Your task to perform on an android device: Turn on the flashlight Image 0: 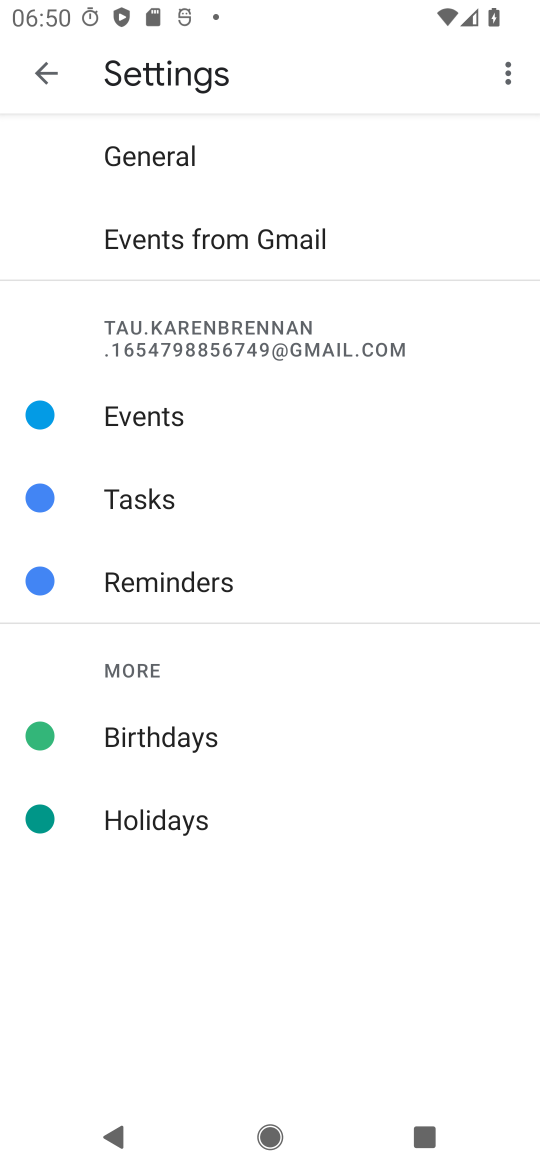
Step 0: press home button
Your task to perform on an android device: Turn on the flashlight Image 1: 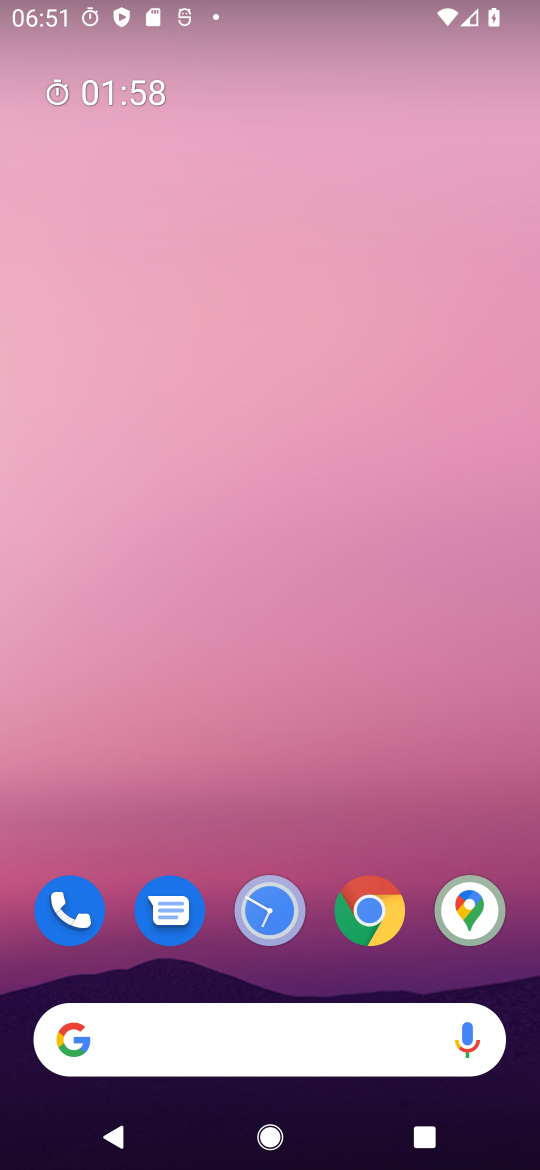
Step 1: drag from (209, 139) to (373, 1002)
Your task to perform on an android device: Turn on the flashlight Image 2: 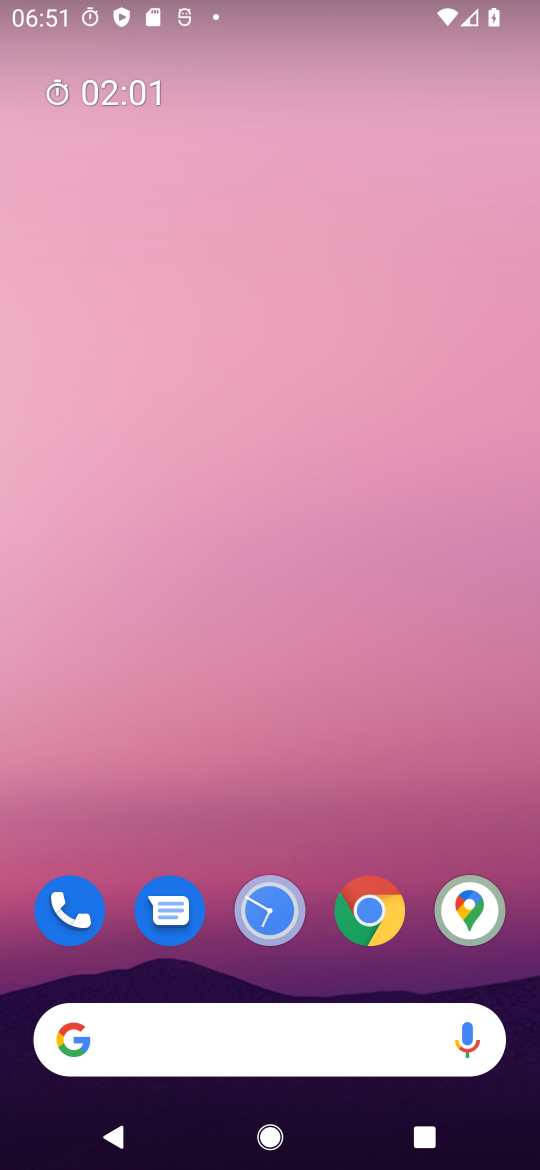
Step 2: drag from (279, 6) to (348, 902)
Your task to perform on an android device: Turn on the flashlight Image 3: 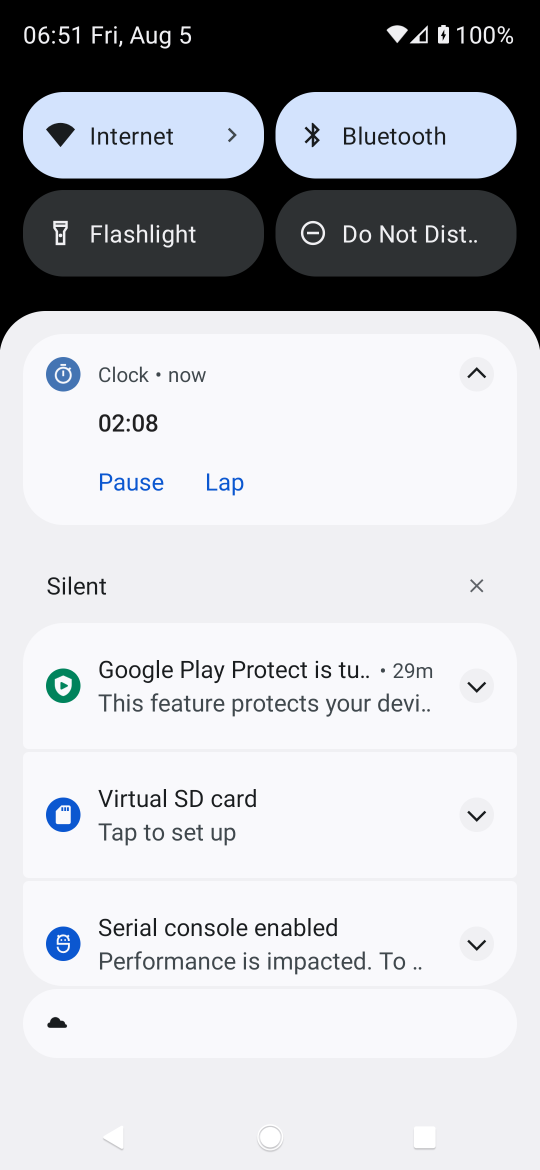
Step 3: click (162, 241)
Your task to perform on an android device: Turn on the flashlight Image 4: 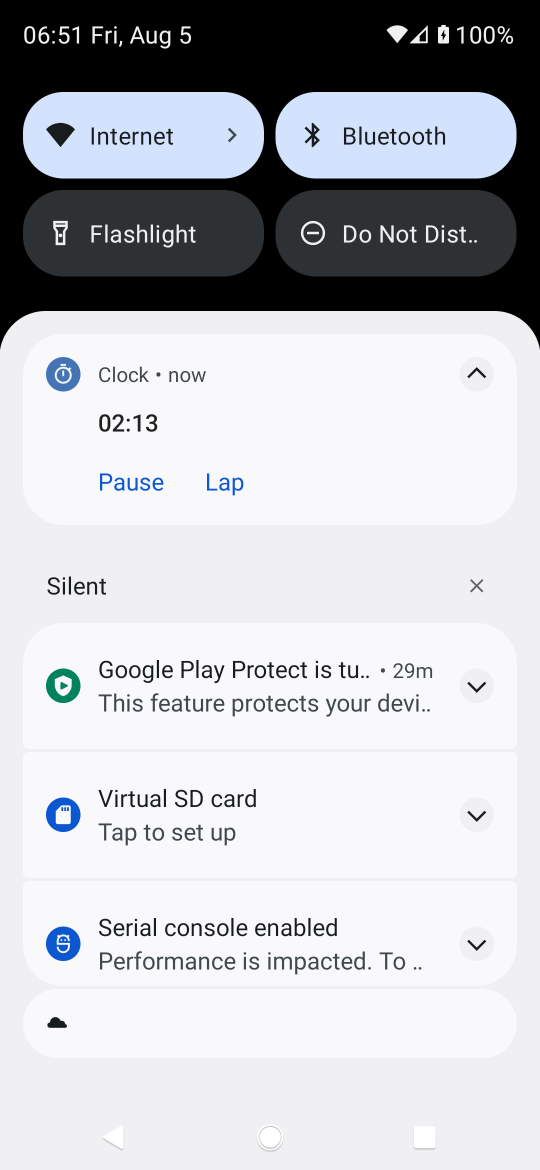
Step 4: click (162, 241)
Your task to perform on an android device: Turn on the flashlight Image 5: 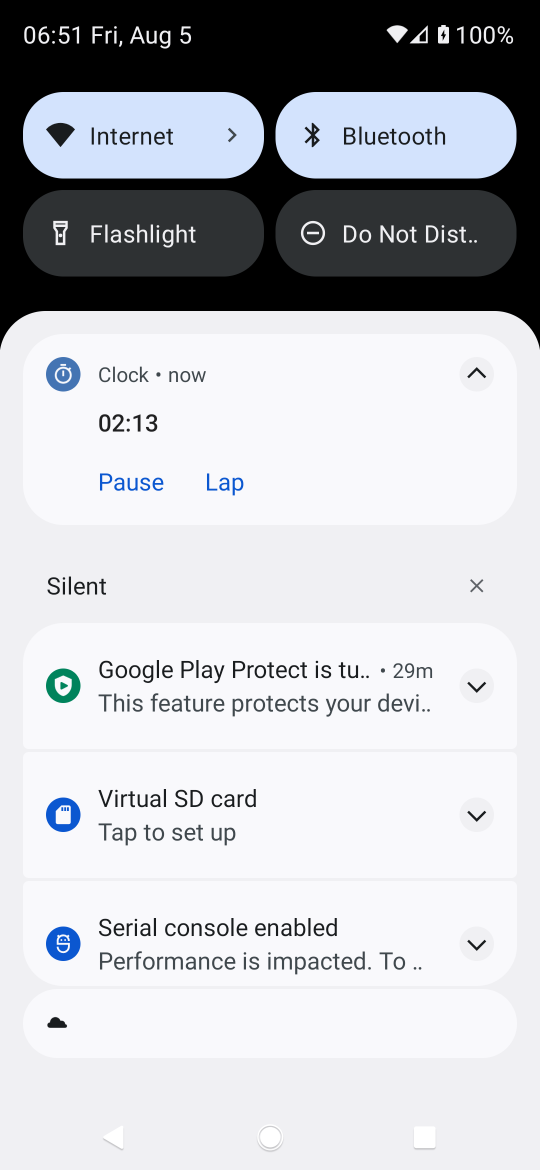
Step 5: click (162, 241)
Your task to perform on an android device: Turn on the flashlight Image 6: 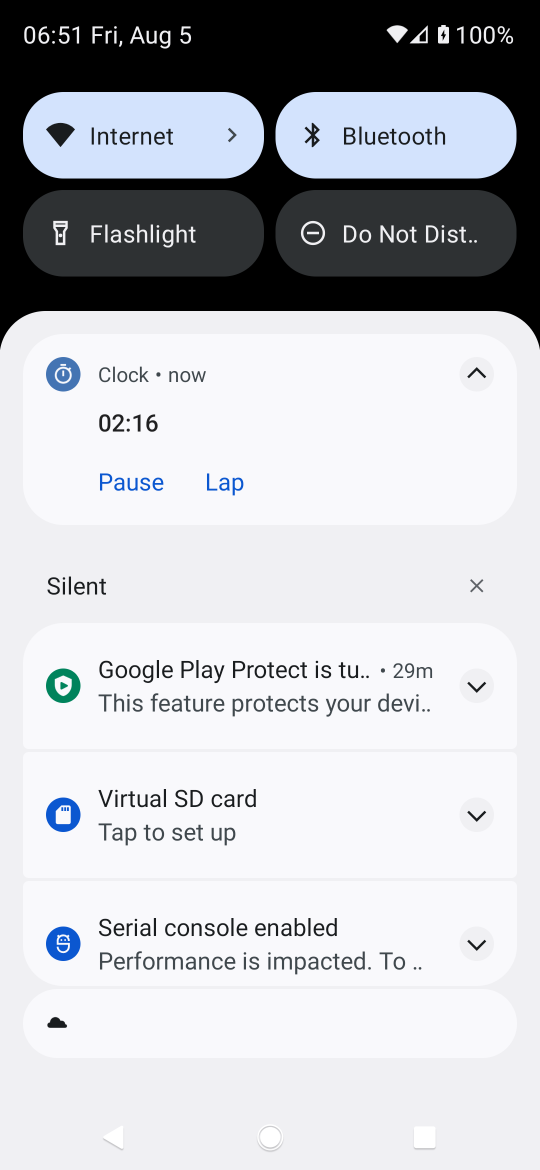
Step 6: task complete